Your task to perform on an android device: Open Yahoo.com Image 0: 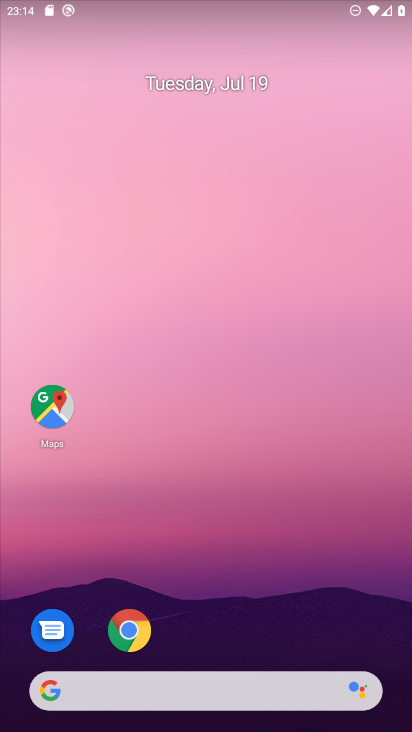
Step 0: click (142, 632)
Your task to perform on an android device: Open Yahoo.com Image 1: 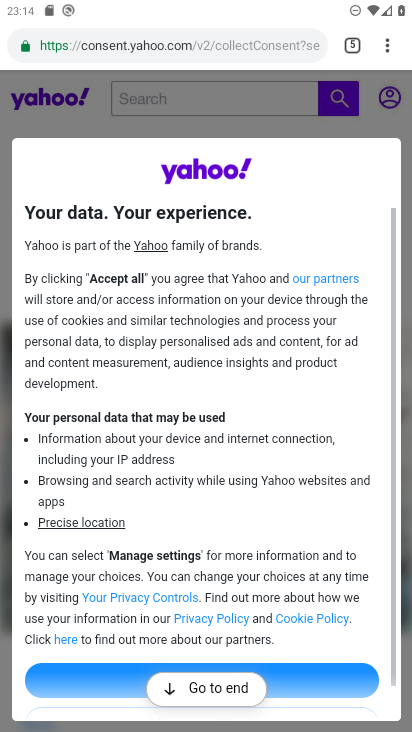
Step 1: task complete